Your task to perform on an android device: turn pop-ups off in chrome Image 0: 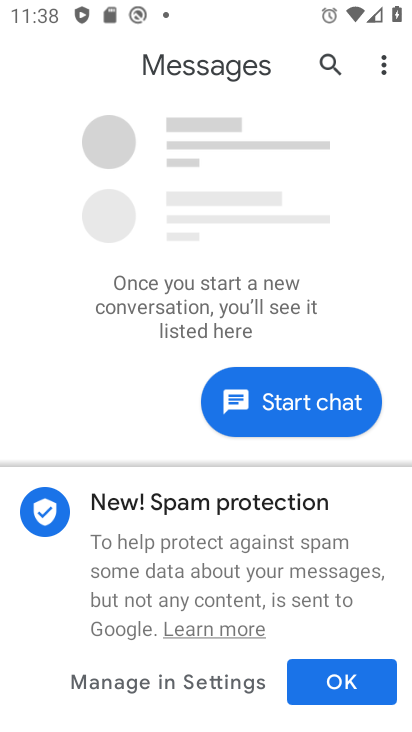
Step 0: press home button
Your task to perform on an android device: turn pop-ups off in chrome Image 1: 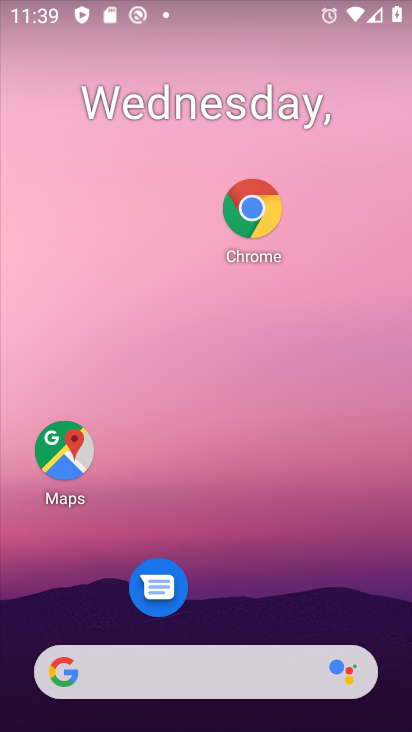
Step 1: click (255, 201)
Your task to perform on an android device: turn pop-ups off in chrome Image 2: 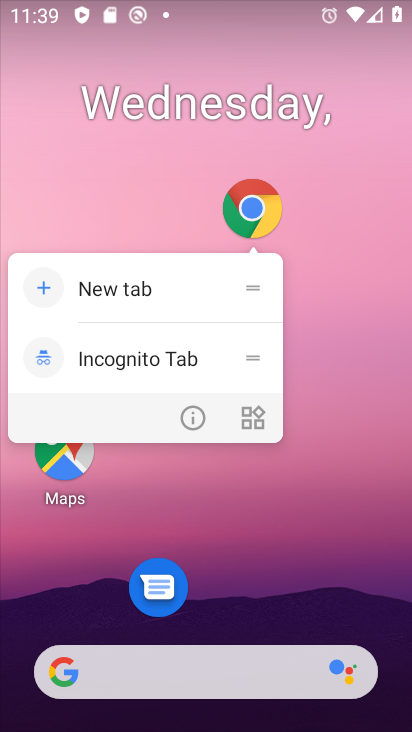
Step 2: click (255, 215)
Your task to perform on an android device: turn pop-ups off in chrome Image 3: 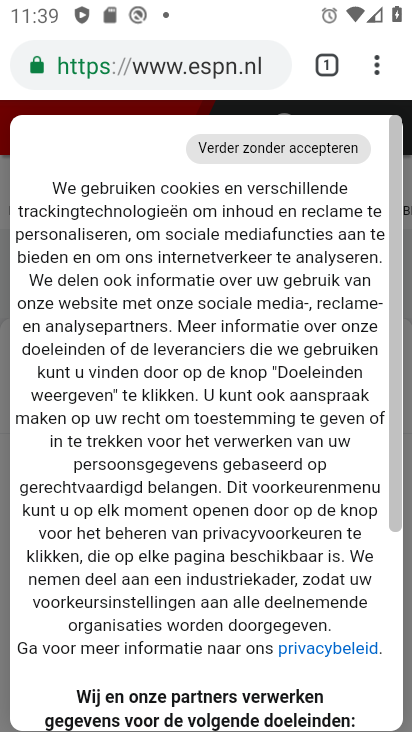
Step 3: click (379, 68)
Your task to perform on an android device: turn pop-ups off in chrome Image 4: 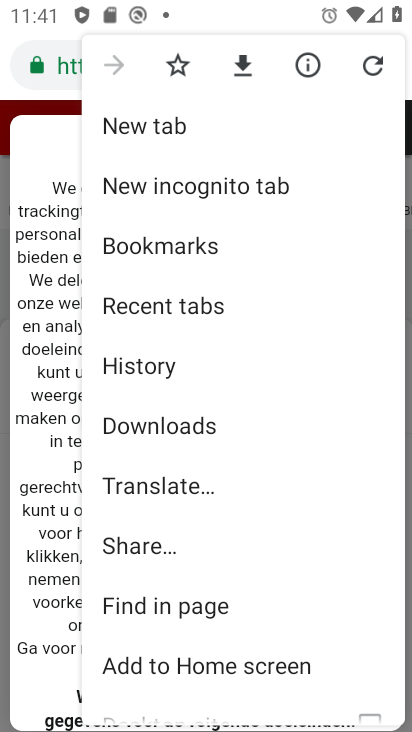
Step 4: drag from (212, 613) to (194, 314)
Your task to perform on an android device: turn pop-ups off in chrome Image 5: 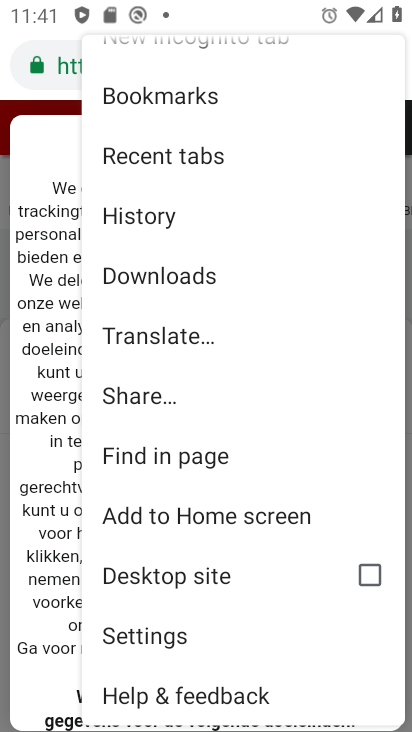
Step 5: click (157, 638)
Your task to perform on an android device: turn pop-ups off in chrome Image 6: 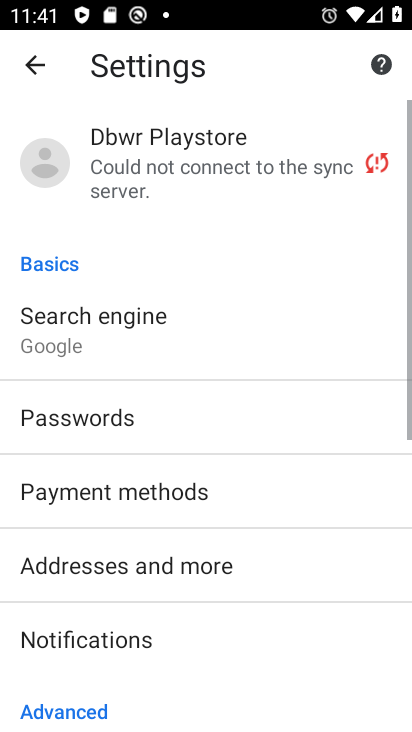
Step 6: drag from (160, 623) to (218, 157)
Your task to perform on an android device: turn pop-ups off in chrome Image 7: 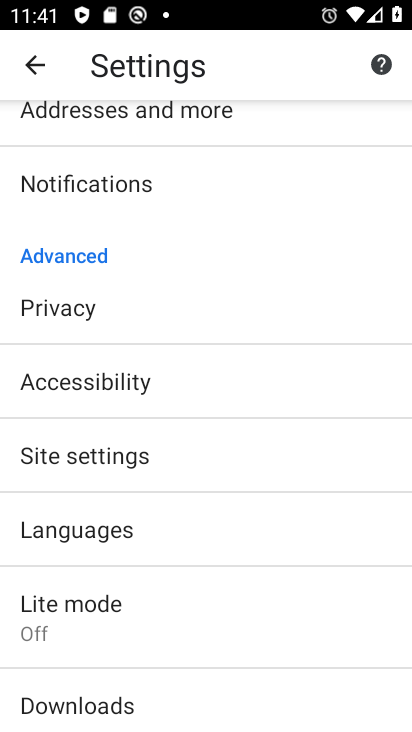
Step 7: drag from (176, 647) to (182, 330)
Your task to perform on an android device: turn pop-ups off in chrome Image 8: 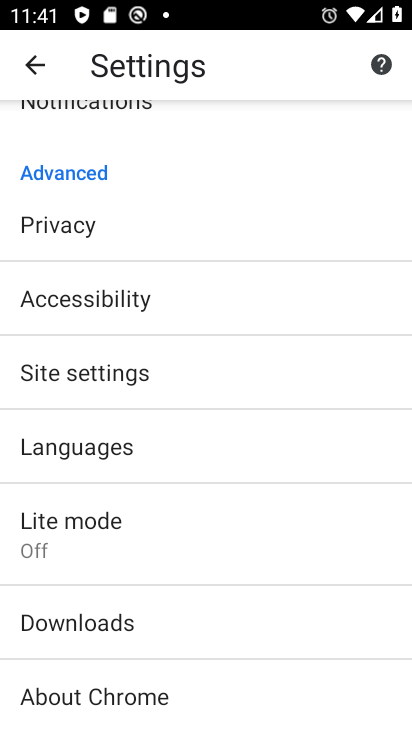
Step 8: drag from (154, 209) to (139, 542)
Your task to perform on an android device: turn pop-ups off in chrome Image 9: 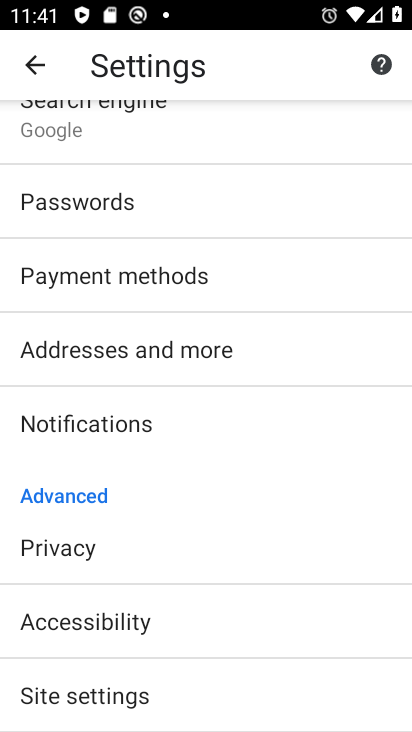
Step 9: drag from (132, 650) to (151, 359)
Your task to perform on an android device: turn pop-ups off in chrome Image 10: 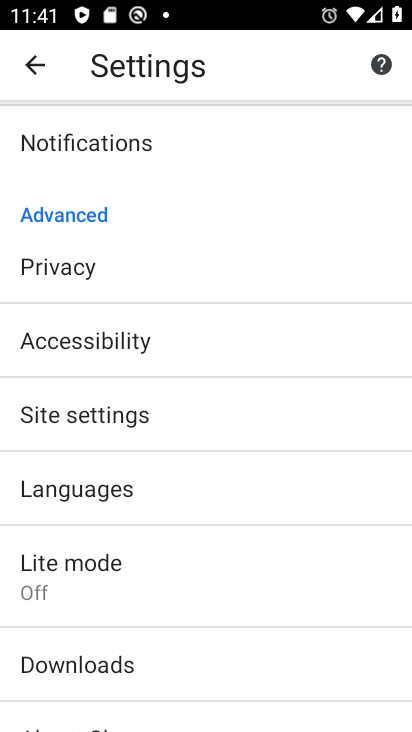
Step 10: click (82, 429)
Your task to perform on an android device: turn pop-ups off in chrome Image 11: 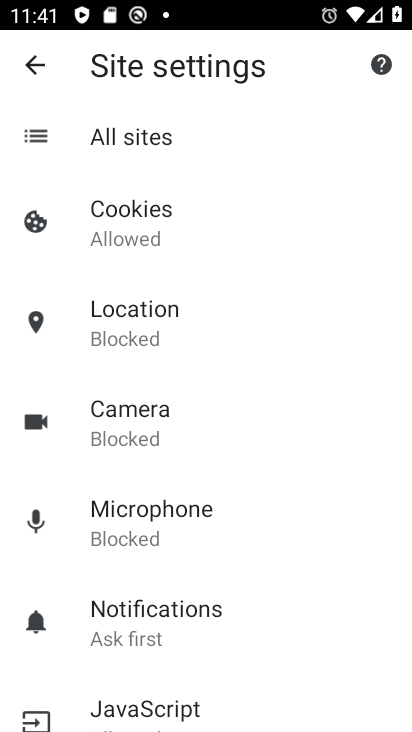
Step 11: drag from (155, 639) to (205, 285)
Your task to perform on an android device: turn pop-ups off in chrome Image 12: 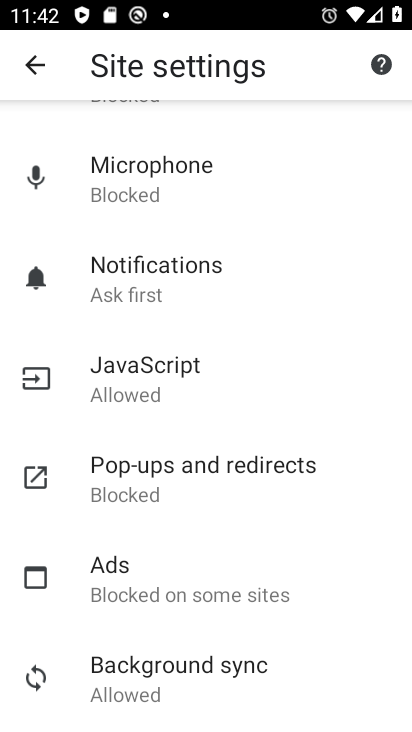
Step 12: click (143, 481)
Your task to perform on an android device: turn pop-ups off in chrome Image 13: 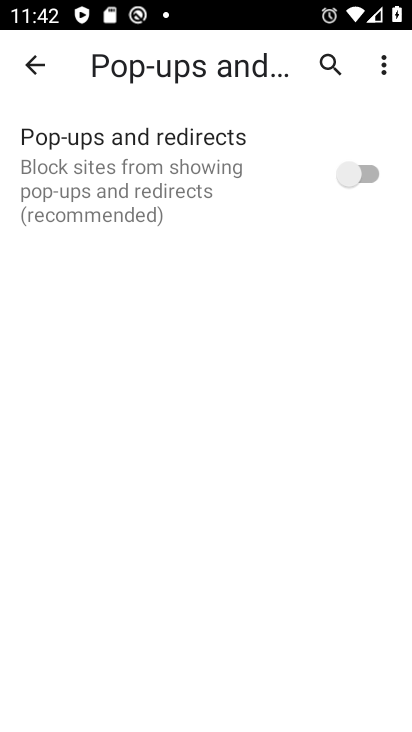
Step 13: task complete